Your task to perform on an android device: open wifi settings Image 0: 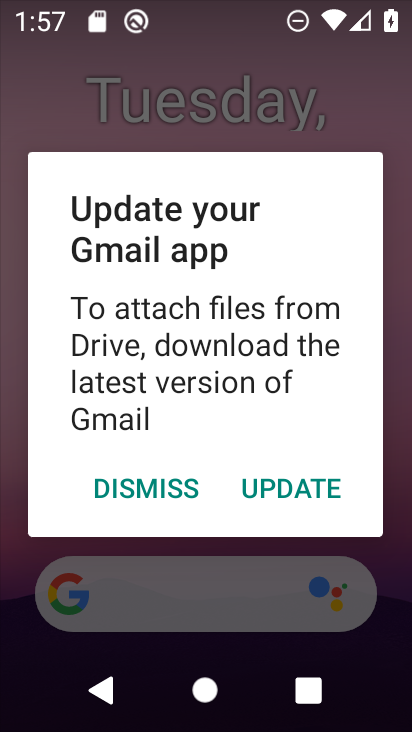
Step 0: click (151, 497)
Your task to perform on an android device: open wifi settings Image 1: 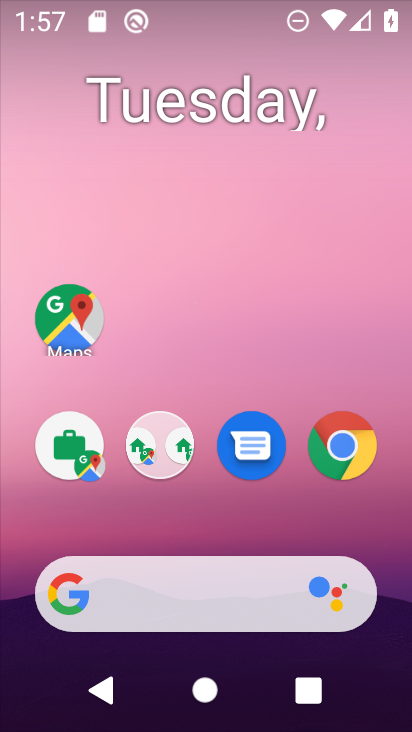
Step 1: drag from (191, 542) to (214, 122)
Your task to perform on an android device: open wifi settings Image 2: 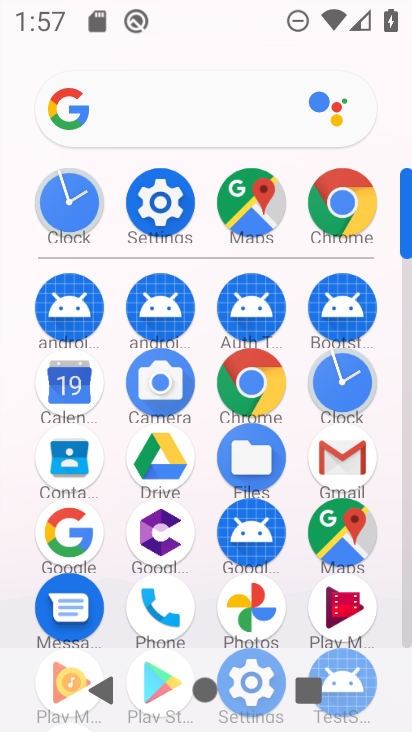
Step 2: click (157, 212)
Your task to perform on an android device: open wifi settings Image 3: 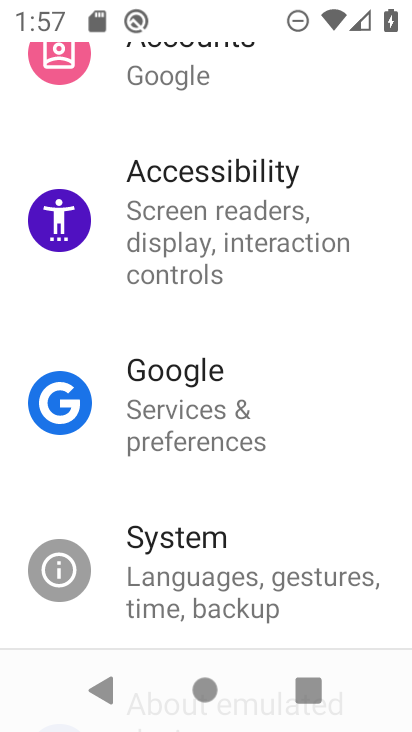
Step 3: drag from (235, 307) to (246, 708)
Your task to perform on an android device: open wifi settings Image 4: 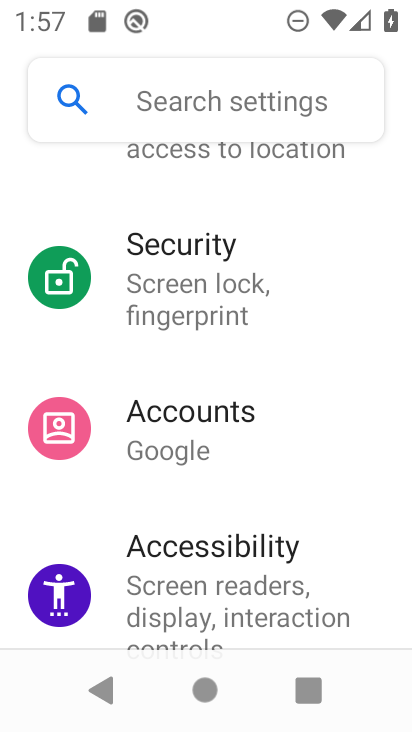
Step 4: drag from (229, 366) to (239, 724)
Your task to perform on an android device: open wifi settings Image 5: 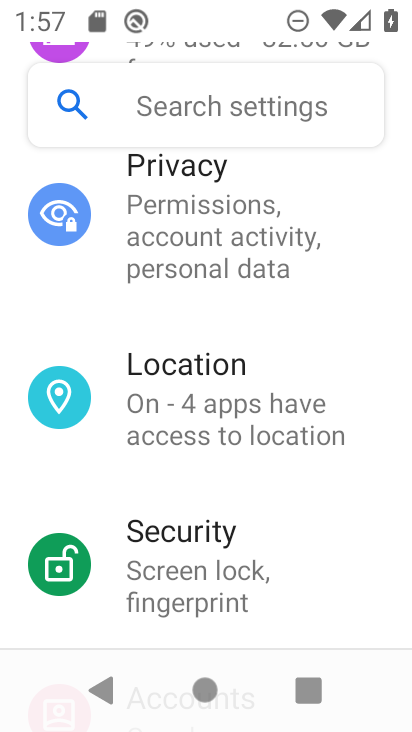
Step 5: drag from (230, 370) to (220, 728)
Your task to perform on an android device: open wifi settings Image 6: 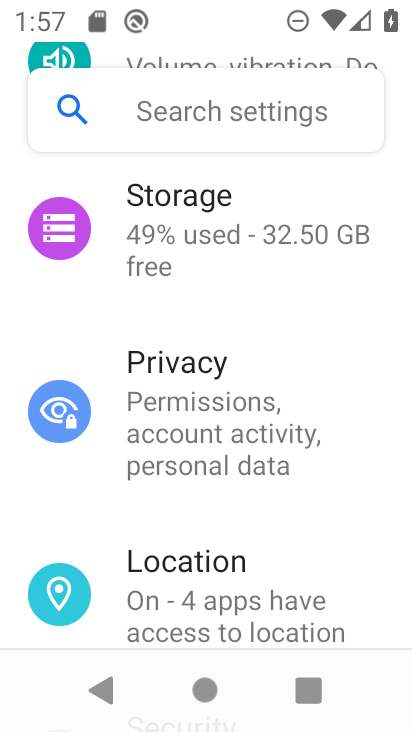
Step 6: drag from (207, 241) to (239, 675)
Your task to perform on an android device: open wifi settings Image 7: 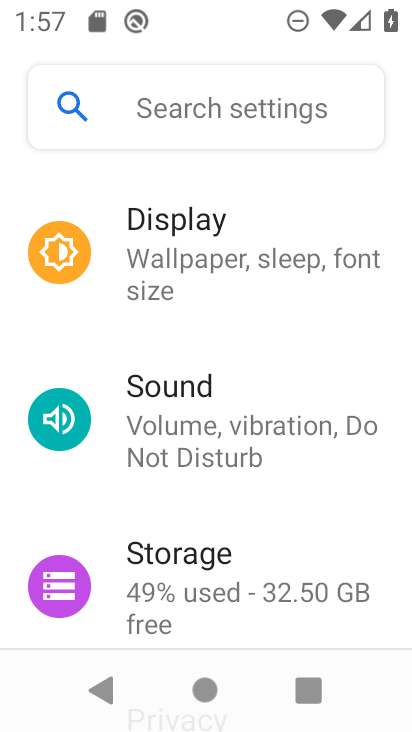
Step 7: drag from (211, 308) to (239, 730)
Your task to perform on an android device: open wifi settings Image 8: 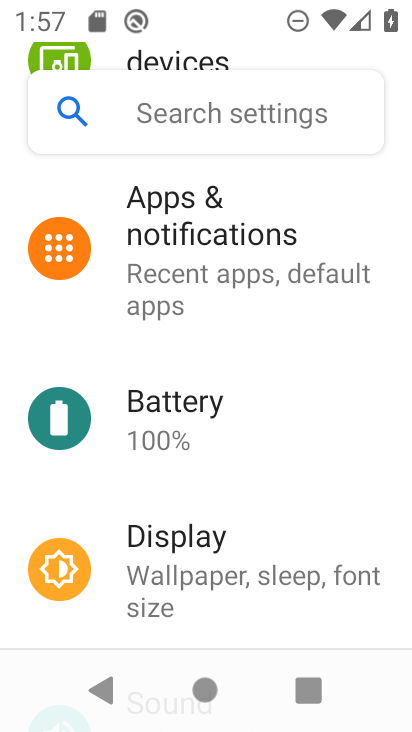
Step 8: drag from (223, 375) to (260, 714)
Your task to perform on an android device: open wifi settings Image 9: 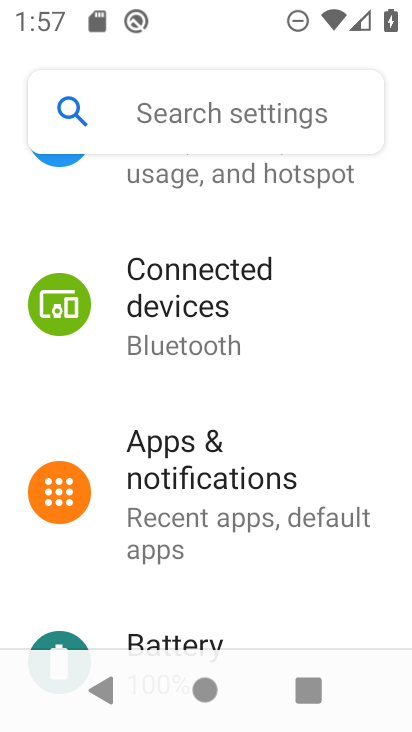
Step 9: drag from (261, 357) to (270, 729)
Your task to perform on an android device: open wifi settings Image 10: 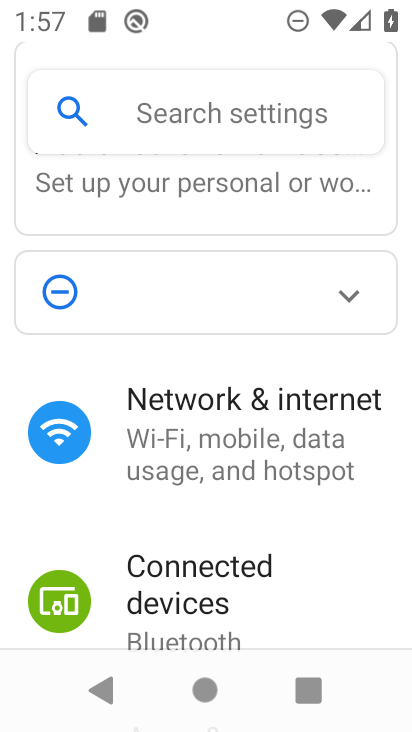
Step 10: click (243, 422)
Your task to perform on an android device: open wifi settings Image 11: 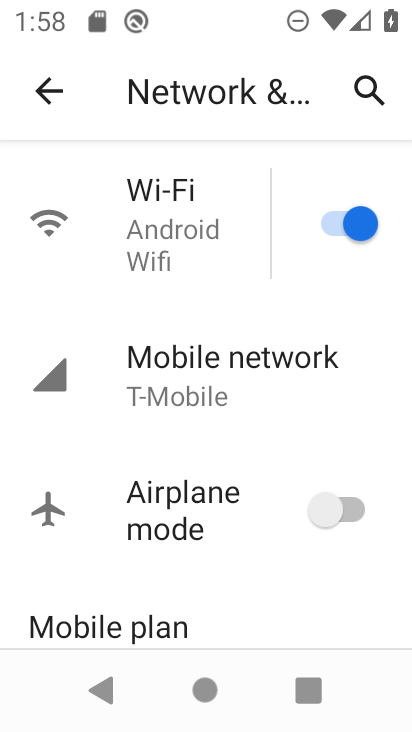
Step 11: click (162, 248)
Your task to perform on an android device: open wifi settings Image 12: 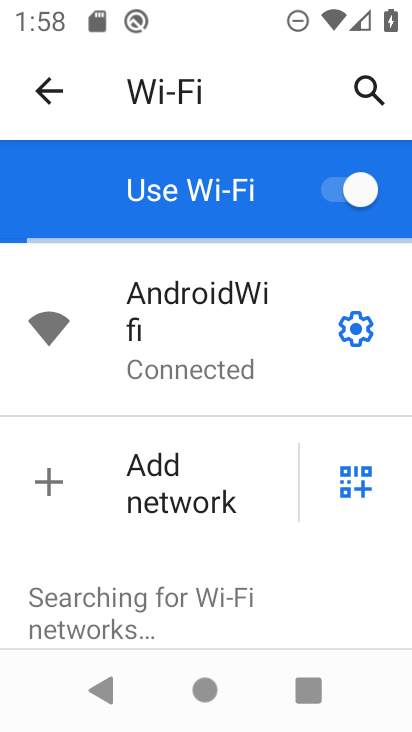
Step 12: task complete